Your task to perform on an android device: Open my contact list Image 0: 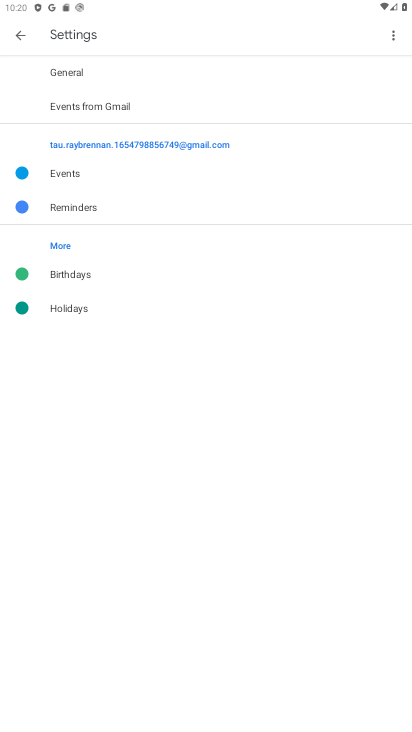
Step 0: press home button
Your task to perform on an android device: Open my contact list Image 1: 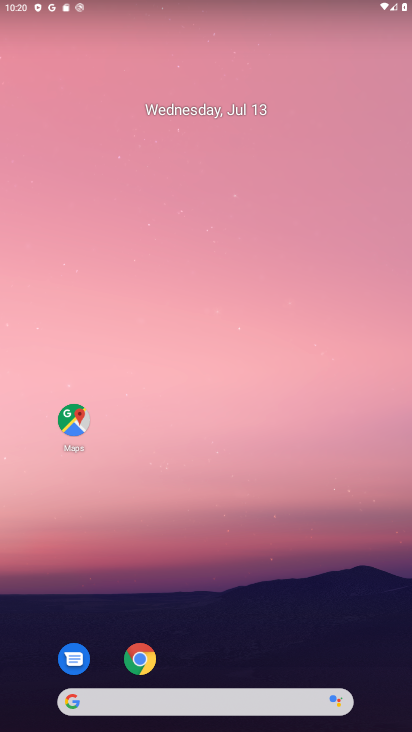
Step 1: drag from (229, 621) to (240, 195)
Your task to perform on an android device: Open my contact list Image 2: 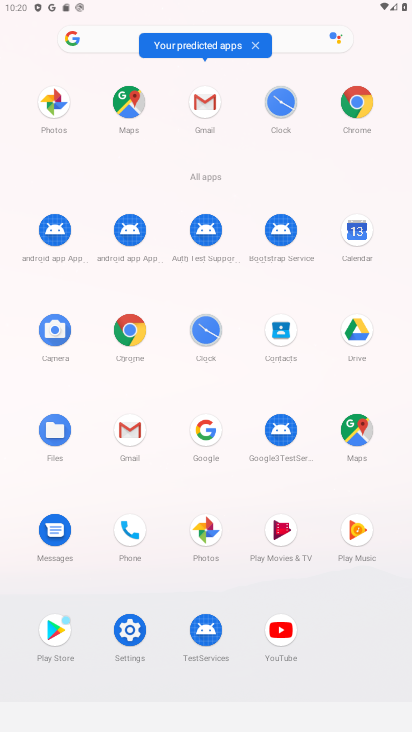
Step 2: drag from (289, 333) to (198, 383)
Your task to perform on an android device: Open my contact list Image 3: 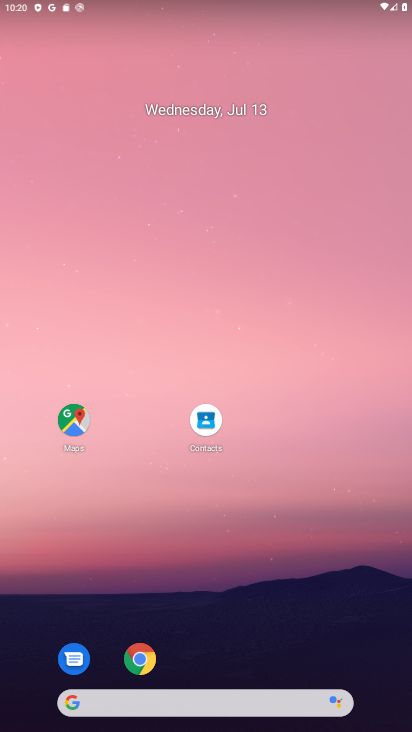
Step 3: click (206, 406)
Your task to perform on an android device: Open my contact list Image 4: 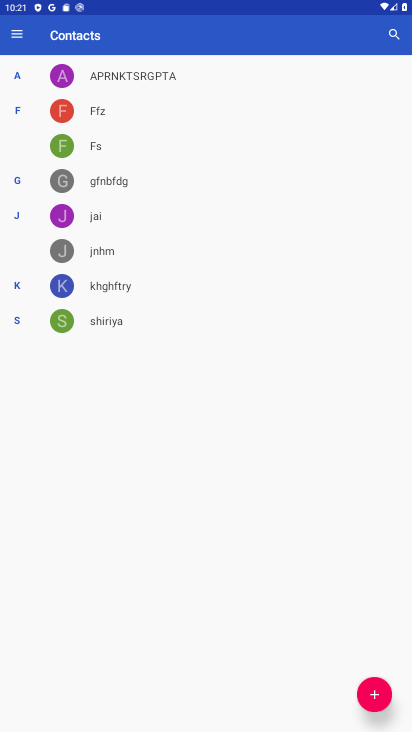
Step 4: task complete